Your task to perform on an android device: snooze an email in the gmail app Image 0: 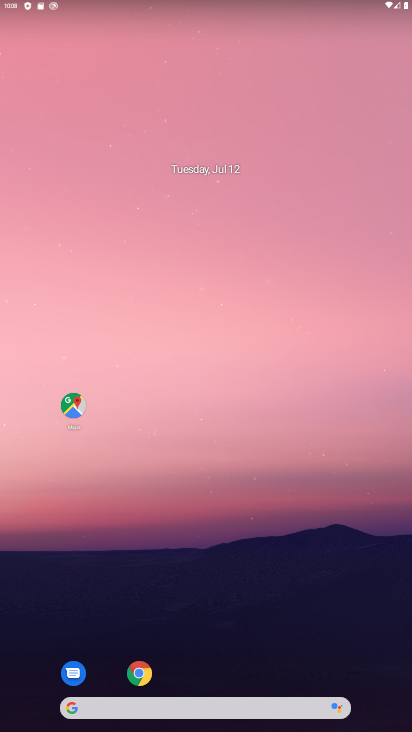
Step 0: drag from (282, 640) to (251, 137)
Your task to perform on an android device: snooze an email in the gmail app Image 1: 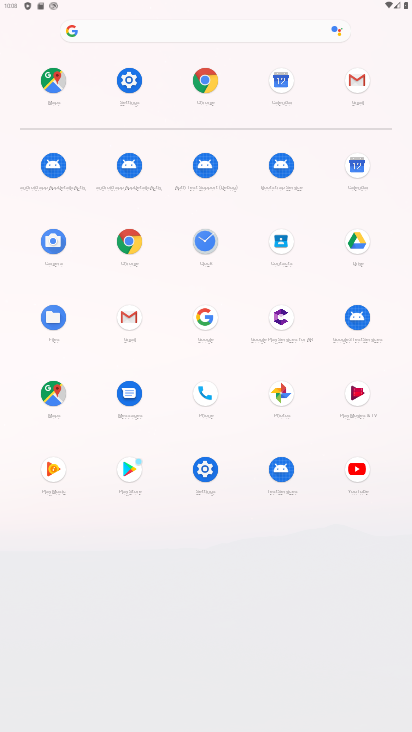
Step 1: click (364, 79)
Your task to perform on an android device: snooze an email in the gmail app Image 2: 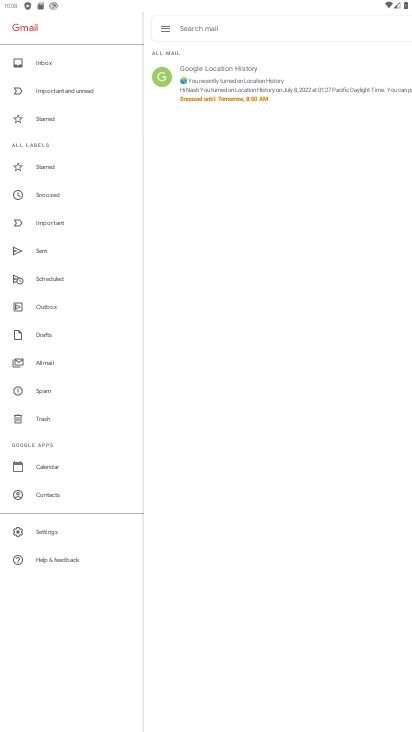
Step 2: click (338, 91)
Your task to perform on an android device: snooze an email in the gmail app Image 3: 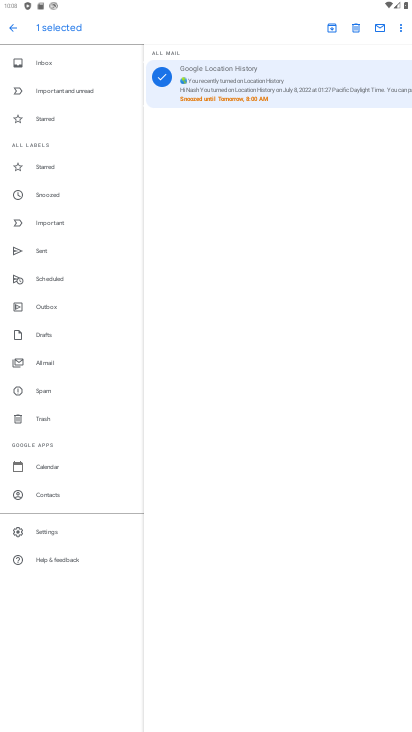
Step 3: click (403, 24)
Your task to perform on an android device: snooze an email in the gmail app Image 4: 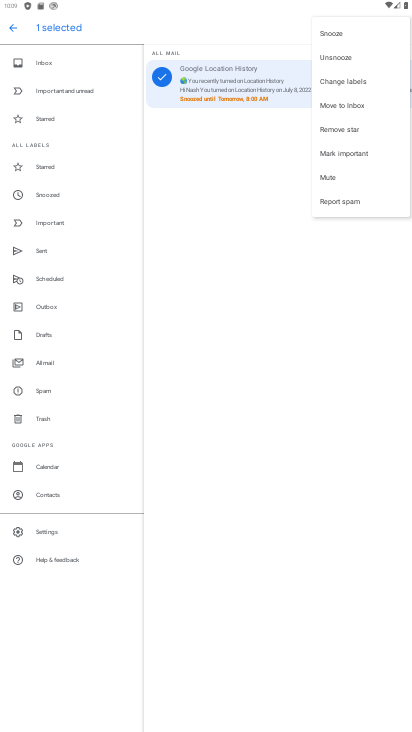
Step 4: click (338, 30)
Your task to perform on an android device: snooze an email in the gmail app Image 5: 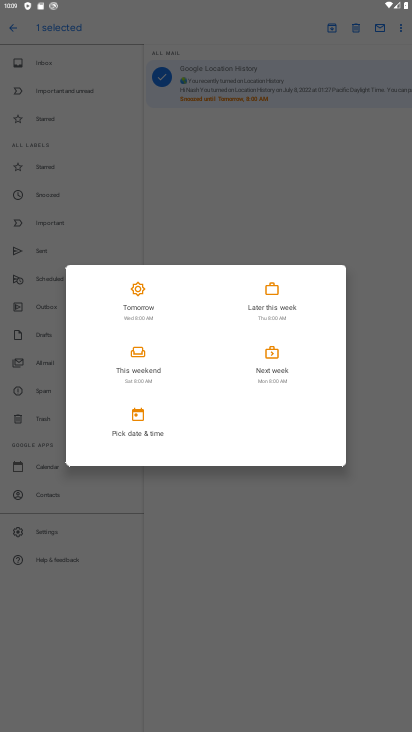
Step 5: click (129, 294)
Your task to perform on an android device: snooze an email in the gmail app Image 6: 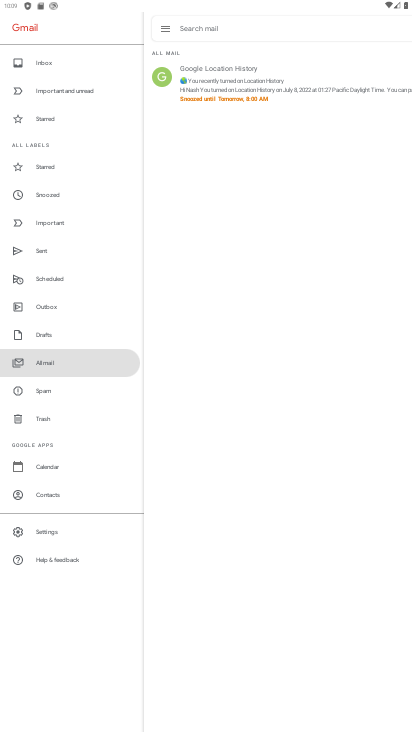
Step 6: task complete